Your task to perform on an android device: What's on my calendar today? Image 0: 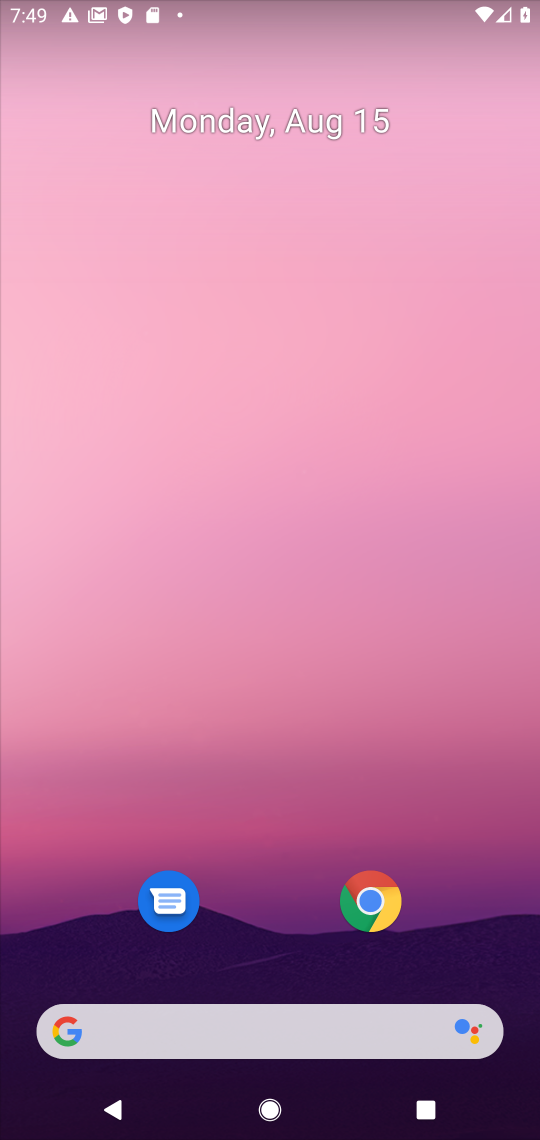
Step 0: click (288, 432)
Your task to perform on an android device: What's on my calendar today? Image 1: 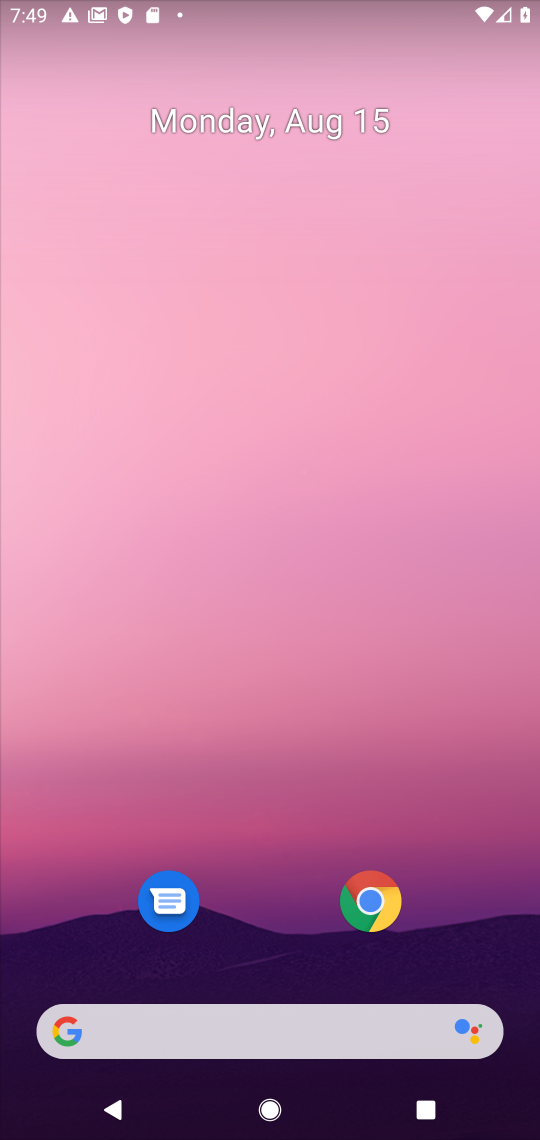
Step 1: drag from (233, 908) to (228, 133)
Your task to perform on an android device: What's on my calendar today? Image 2: 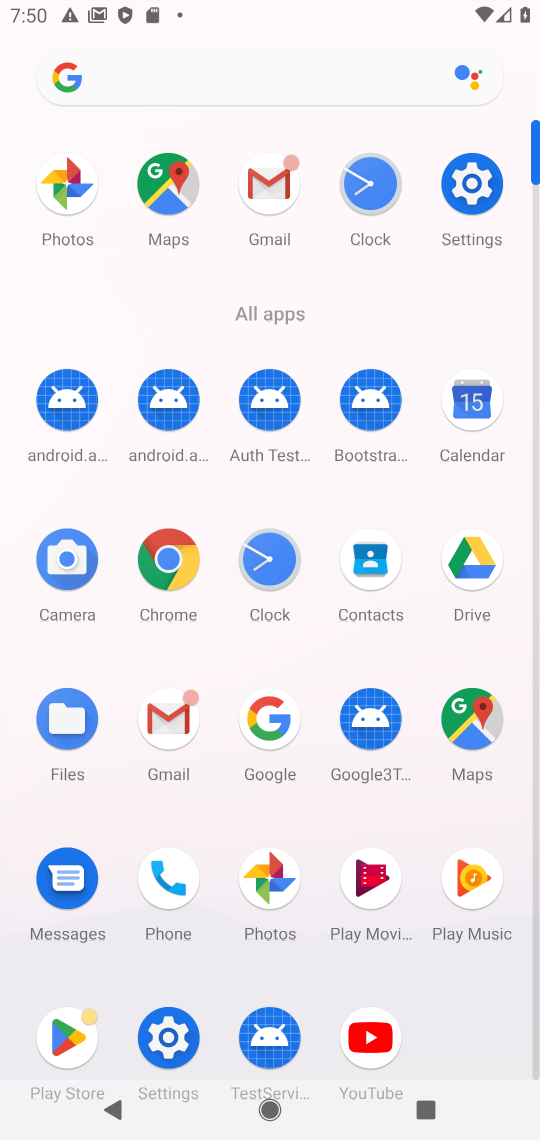
Step 2: click (473, 419)
Your task to perform on an android device: What's on my calendar today? Image 3: 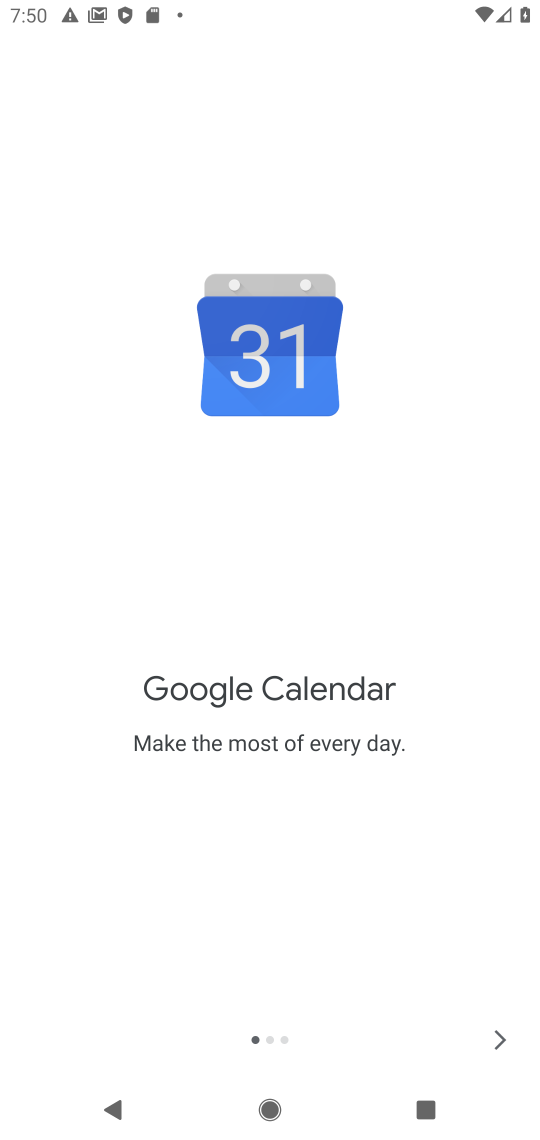
Step 3: click (493, 1026)
Your task to perform on an android device: What's on my calendar today? Image 4: 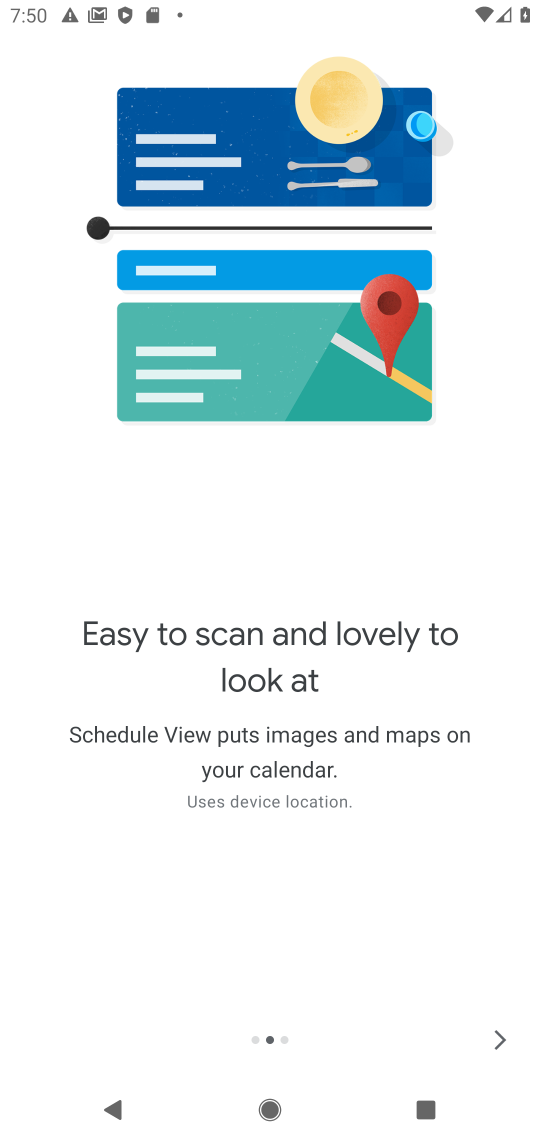
Step 4: click (491, 1028)
Your task to perform on an android device: What's on my calendar today? Image 5: 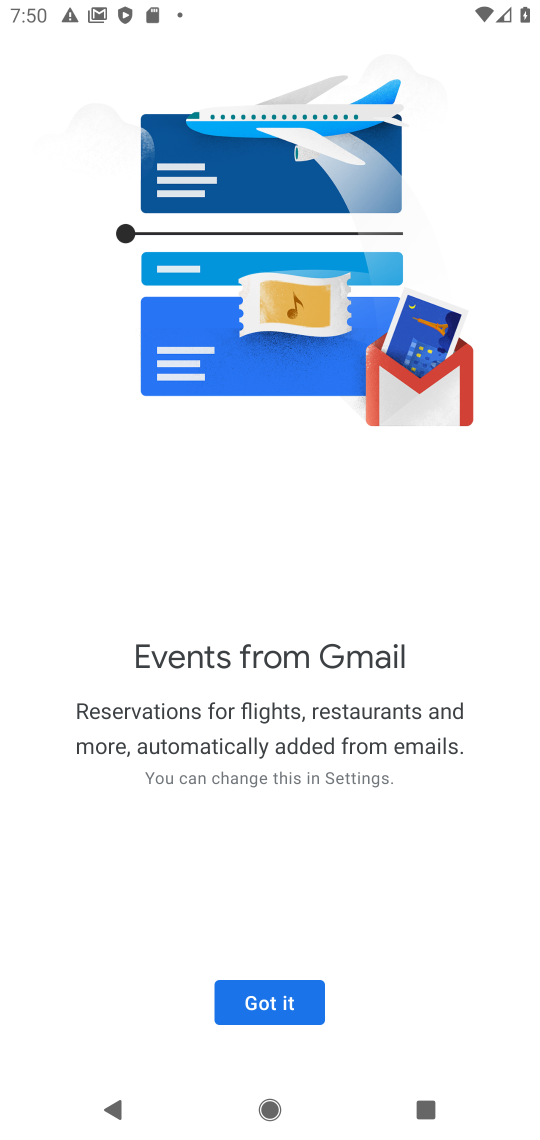
Step 5: click (264, 1008)
Your task to perform on an android device: What's on my calendar today? Image 6: 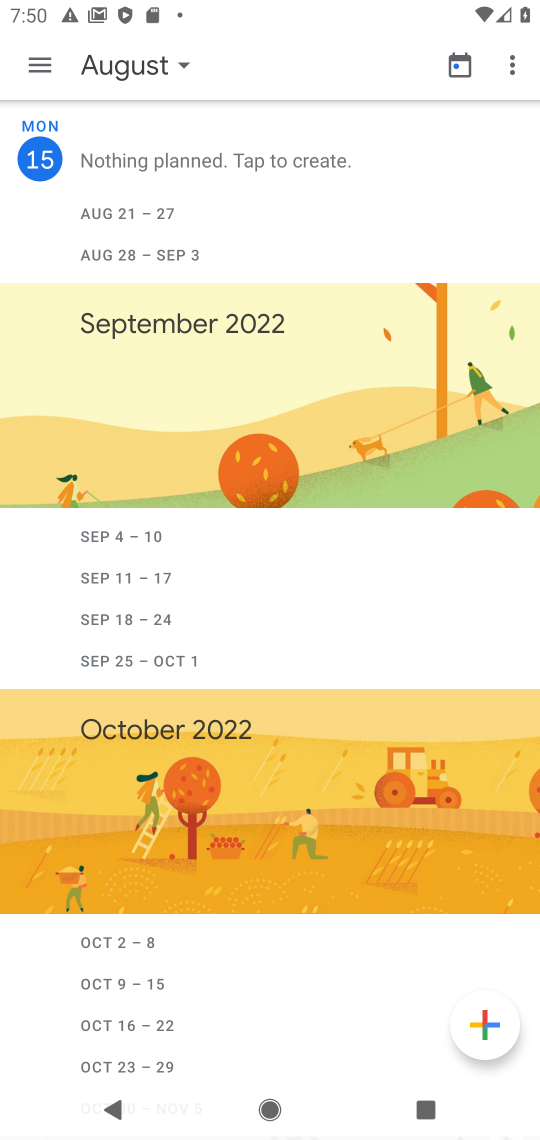
Step 6: click (36, 60)
Your task to perform on an android device: What's on my calendar today? Image 7: 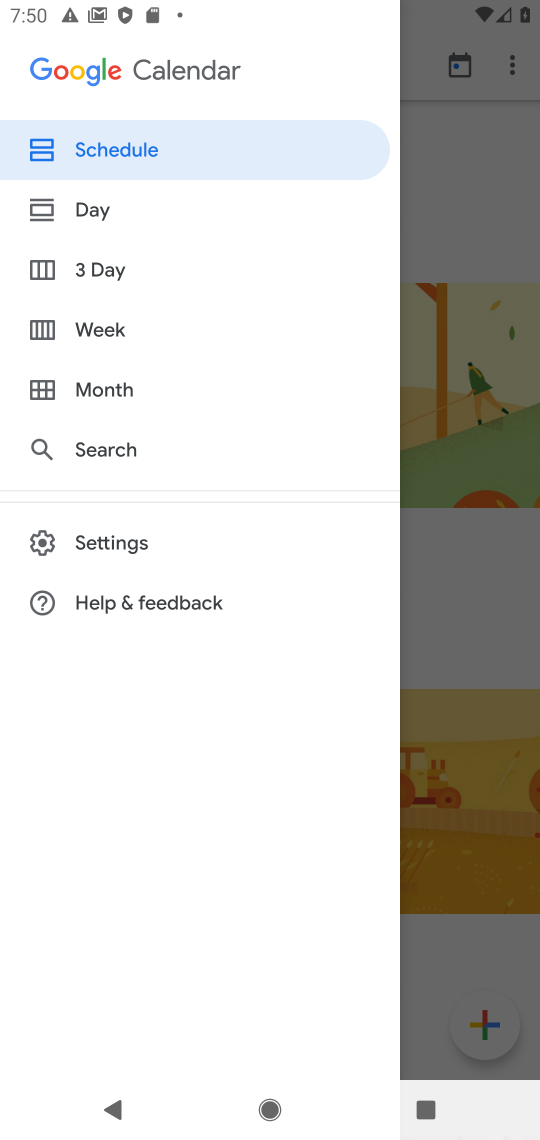
Step 7: click (95, 222)
Your task to perform on an android device: What's on my calendar today? Image 8: 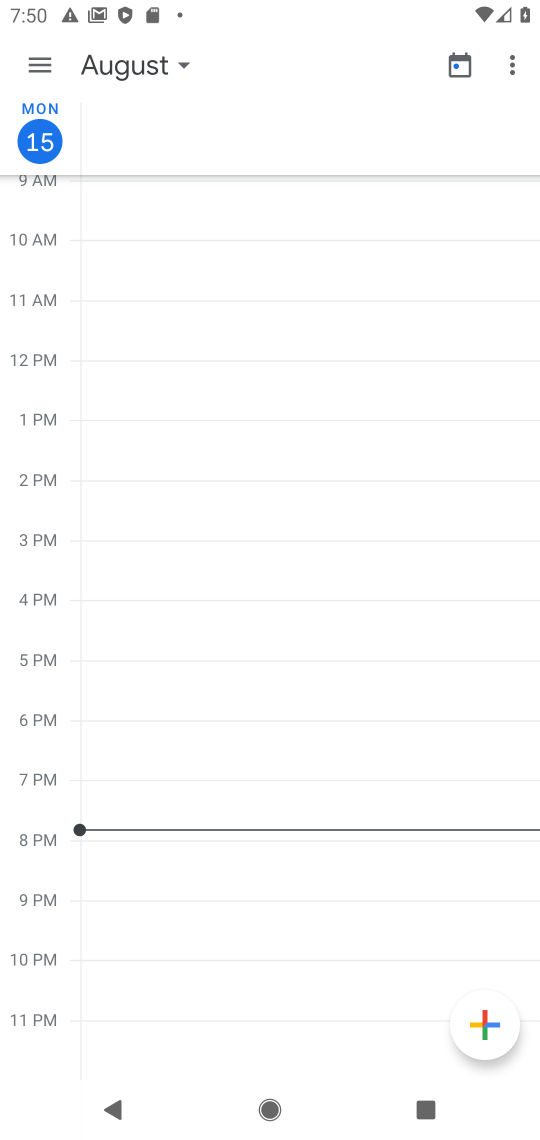
Step 8: task complete